Your task to perform on an android device: change notifications settings Image 0: 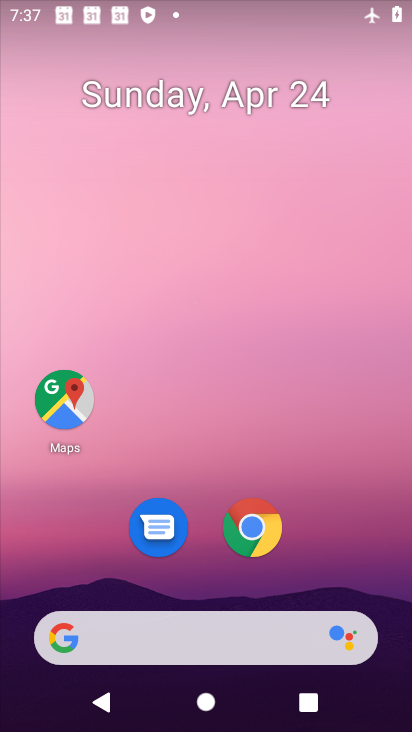
Step 0: drag from (380, 603) to (268, 38)
Your task to perform on an android device: change notifications settings Image 1: 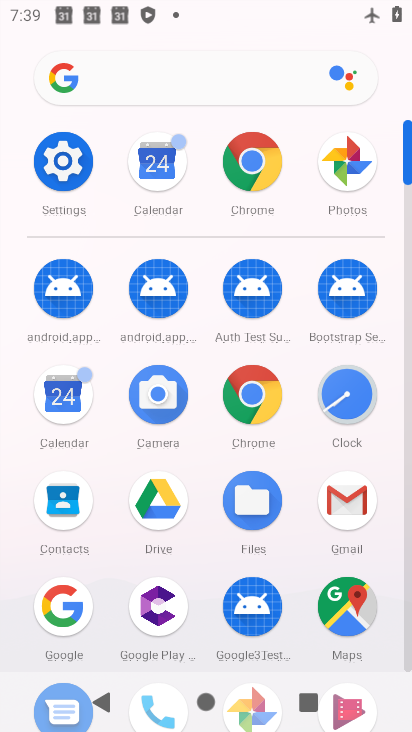
Step 1: click (58, 175)
Your task to perform on an android device: change notifications settings Image 2: 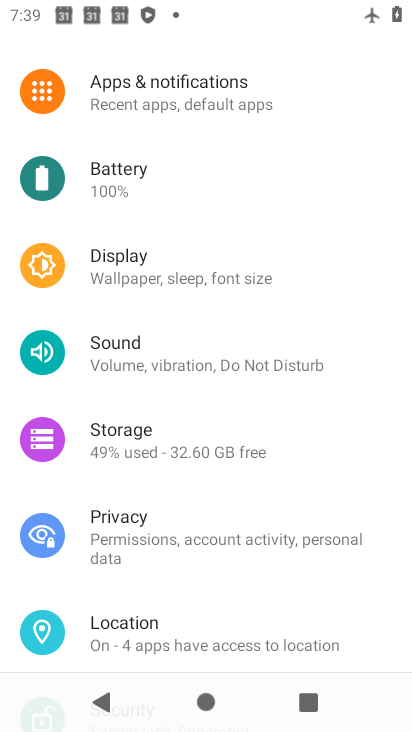
Step 2: click (246, 100)
Your task to perform on an android device: change notifications settings Image 3: 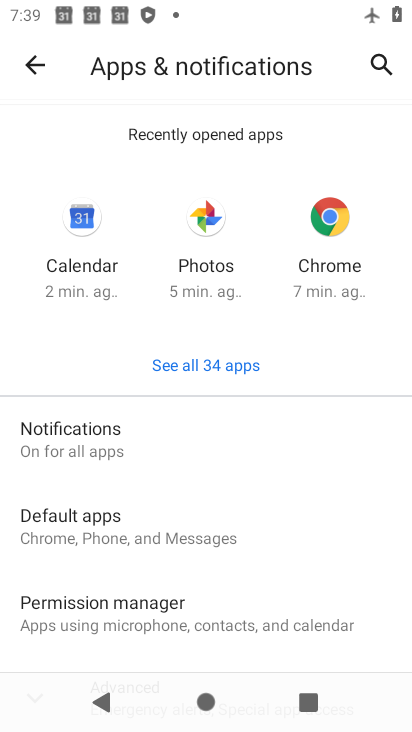
Step 3: click (166, 430)
Your task to perform on an android device: change notifications settings Image 4: 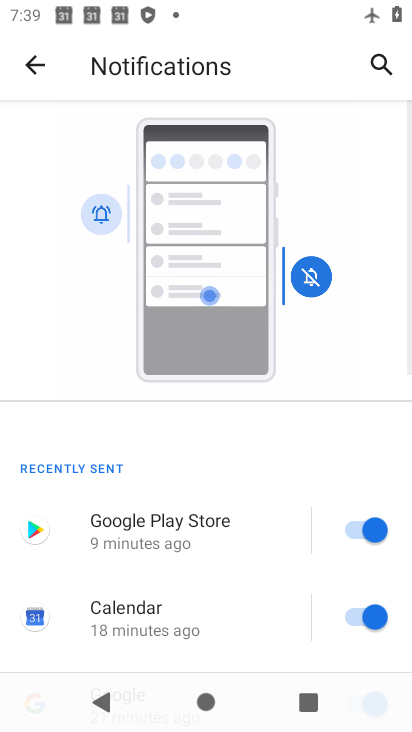
Step 4: task complete